Your task to perform on an android device: remove spam from my inbox in the gmail app Image 0: 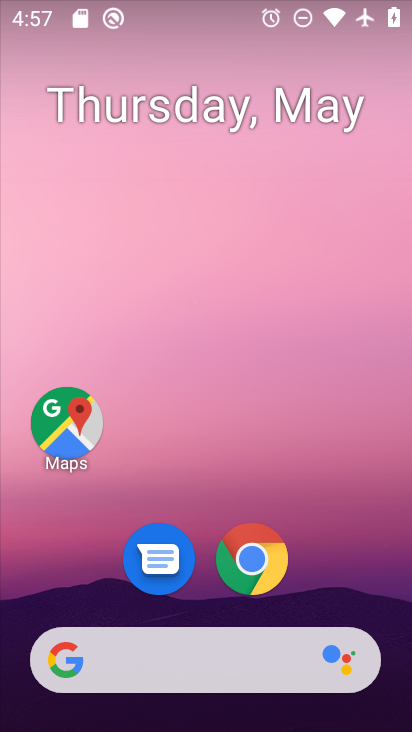
Step 0: drag from (340, 540) to (158, 37)
Your task to perform on an android device: remove spam from my inbox in the gmail app Image 1: 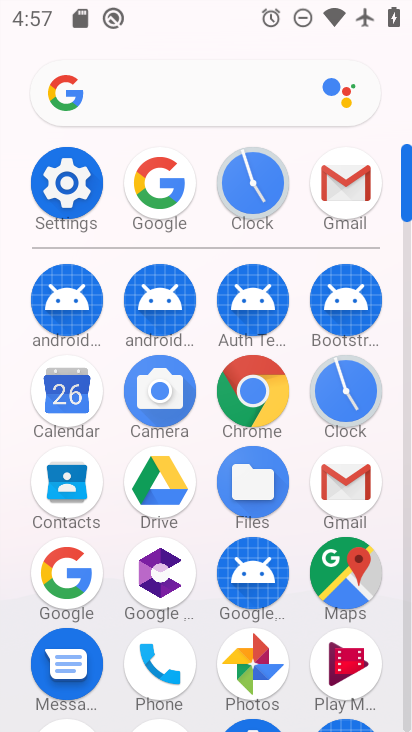
Step 1: click (335, 475)
Your task to perform on an android device: remove spam from my inbox in the gmail app Image 2: 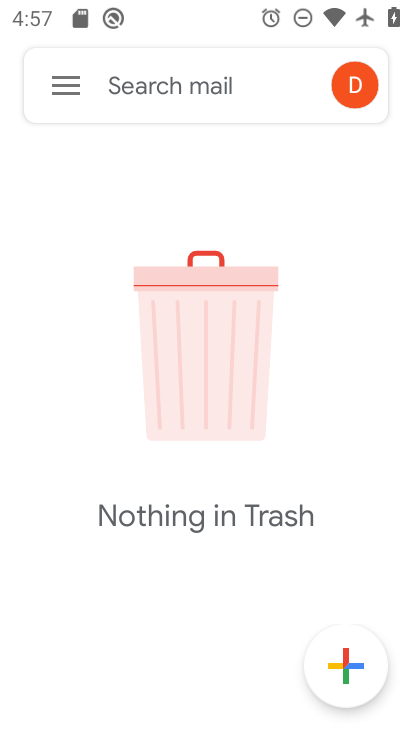
Step 2: click (55, 80)
Your task to perform on an android device: remove spam from my inbox in the gmail app Image 3: 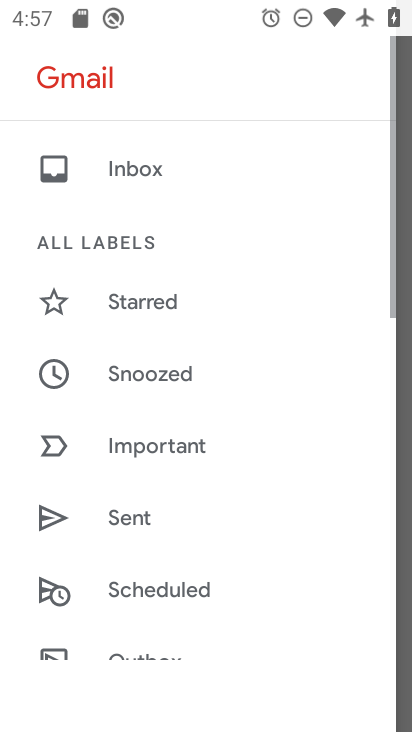
Step 3: drag from (188, 531) to (185, 88)
Your task to perform on an android device: remove spam from my inbox in the gmail app Image 4: 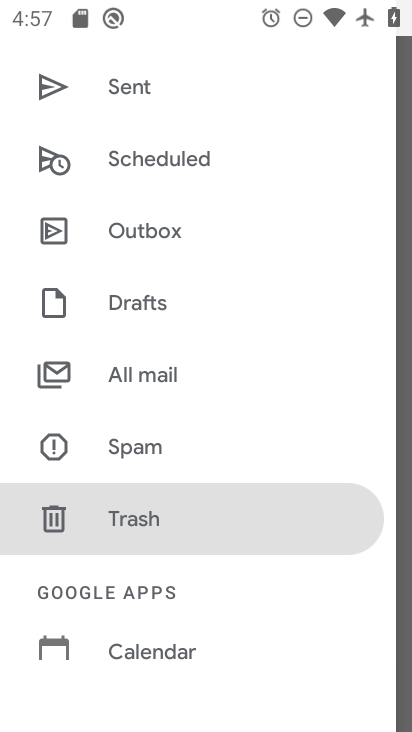
Step 4: click (188, 436)
Your task to perform on an android device: remove spam from my inbox in the gmail app Image 5: 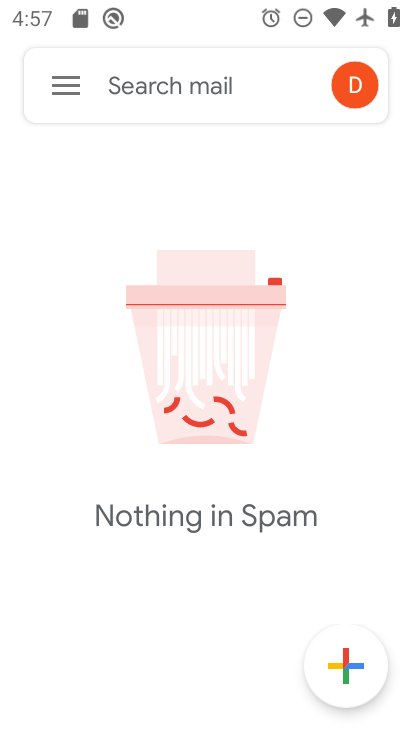
Step 5: task complete